Your task to perform on an android device: snooze an email in the gmail app Image 0: 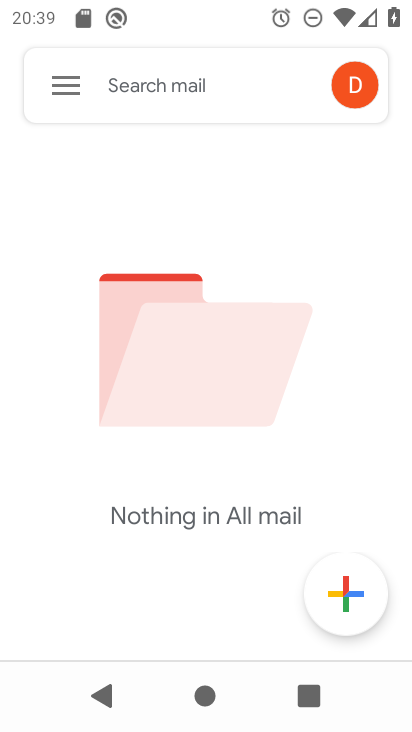
Step 0: press home button
Your task to perform on an android device: snooze an email in the gmail app Image 1: 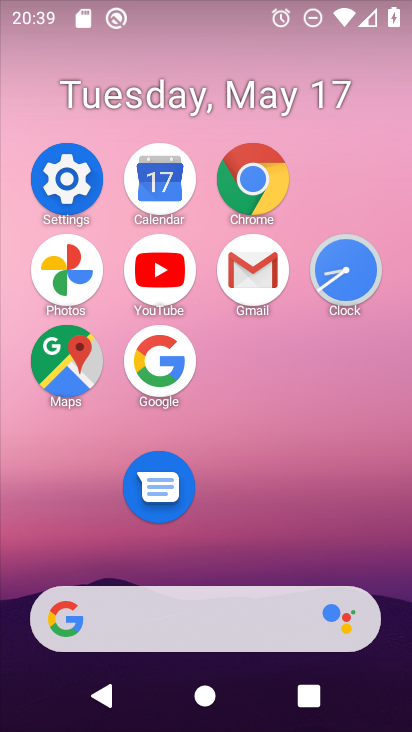
Step 1: click (269, 296)
Your task to perform on an android device: snooze an email in the gmail app Image 2: 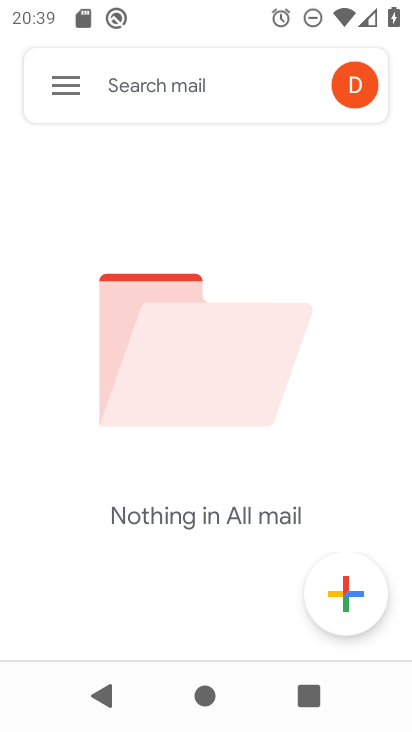
Step 2: click (46, 104)
Your task to perform on an android device: snooze an email in the gmail app Image 3: 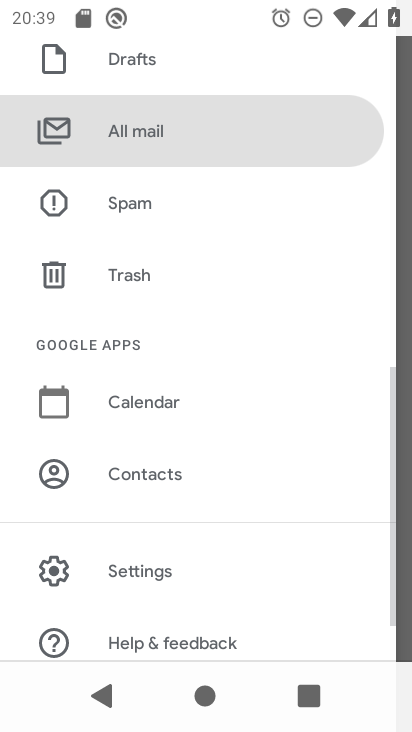
Step 3: click (104, 135)
Your task to perform on an android device: snooze an email in the gmail app Image 4: 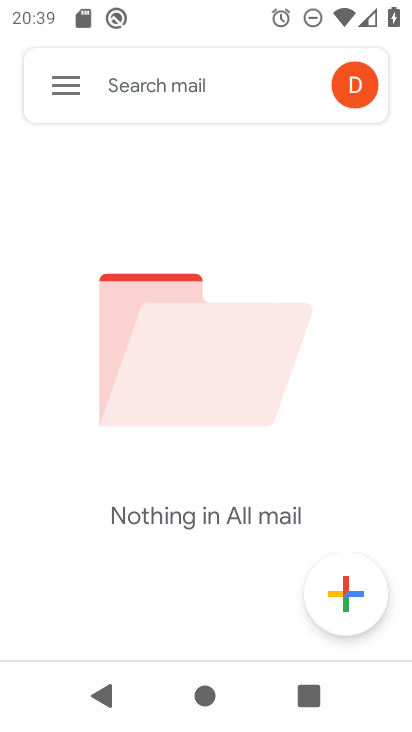
Step 4: task complete